Your task to perform on an android device: open chrome privacy settings Image 0: 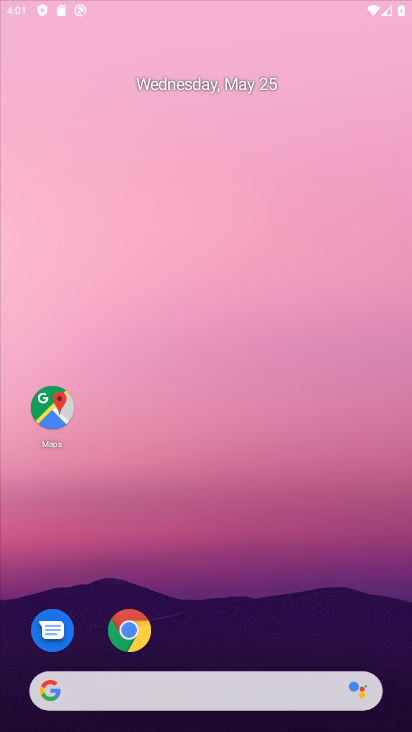
Step 0: drag from (263, 654) to (298, 89)
Your task to perform on an android device: open chrome privacy settings Image 1: 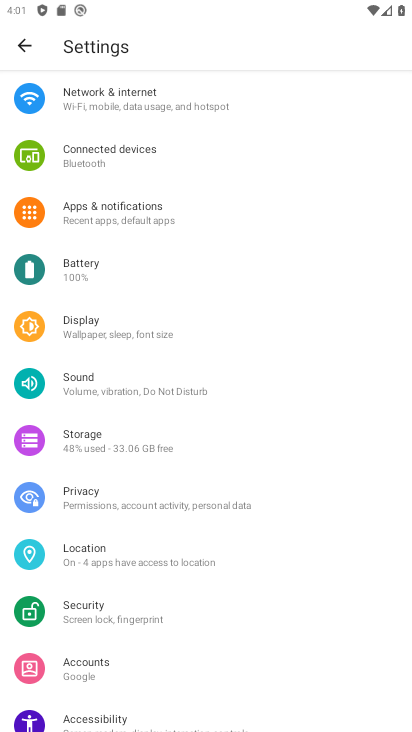
Step 1: press home button
Your task to perform on an android device: open chrome privacy settings Image 2: 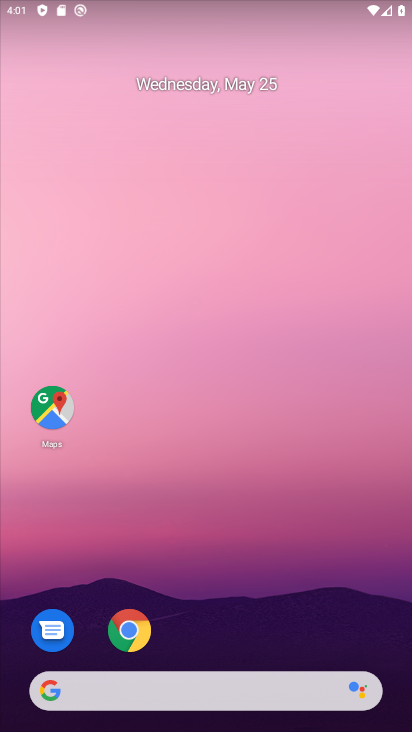
Step 2: click (130, 637)
Your task to perform on an android device: open chrome privacy settings Image 3: 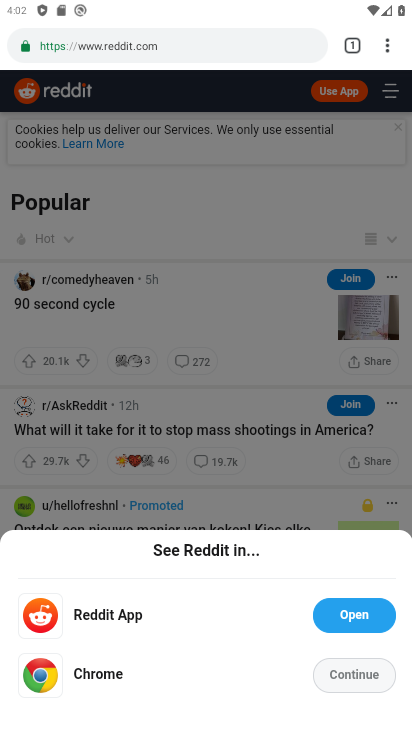
Step 3: drag from (386, 45) to (213, 500)
Your task to perform on an android device: open chrome privacy settings Image 4: 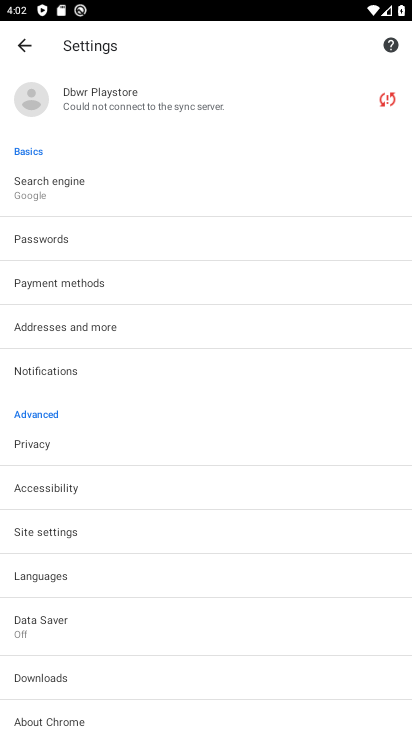
Step 4: click (46, 439)
Your task to perform on an android device: open chrome privacy settings Image 5: 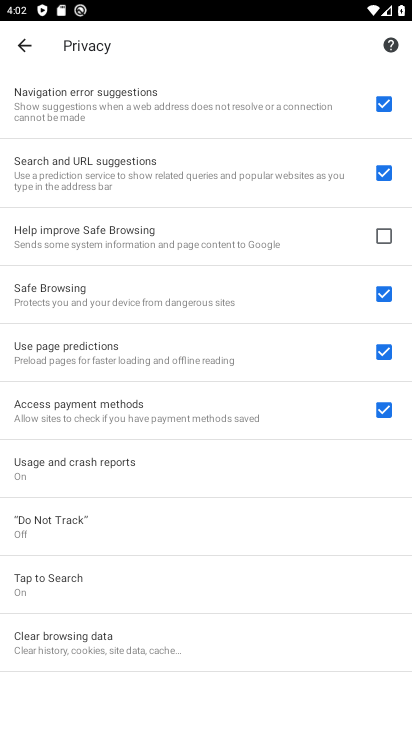
Step 5: task complete